Your task to perform on an android device: turn on data saver in the chrome app Image 0: 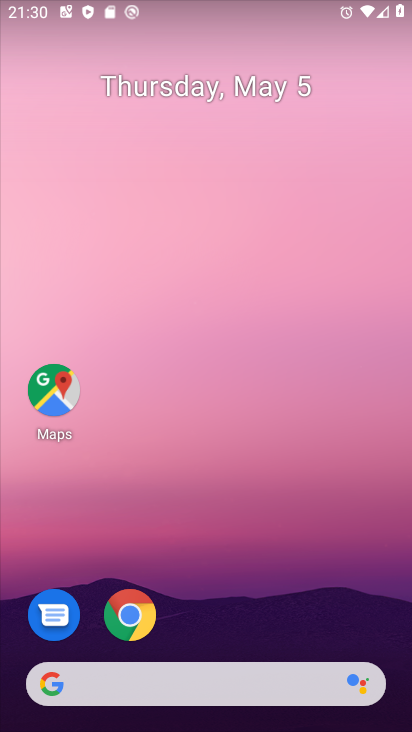
Step 0: drag from (220, 627) to (214, 188)
Your task to perform on an android device: turn on data saver in the chrome app Image 1: 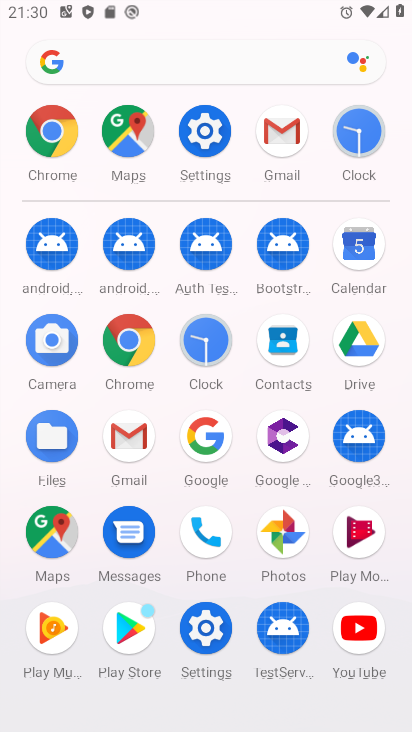
Step 1: click (132, 355)
Your task to perform on an android device: turn on data saver in the chrome app Image 2: 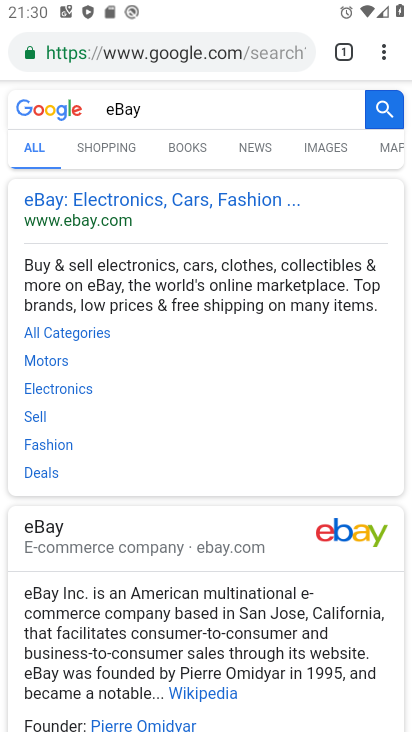
Step 2: click (383, 62)
Your task to perform on an android device: turn on data saver in the chrome app Image 3: 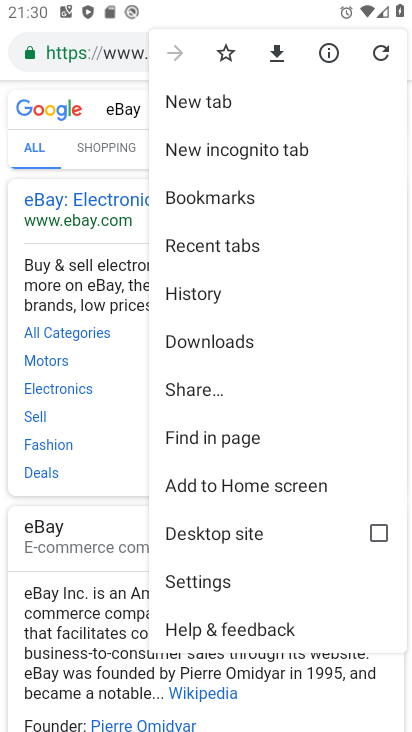
Step 3: click (219, 584)
Your task to perform on an android device: turn on data saver in the chrome app Image 4: 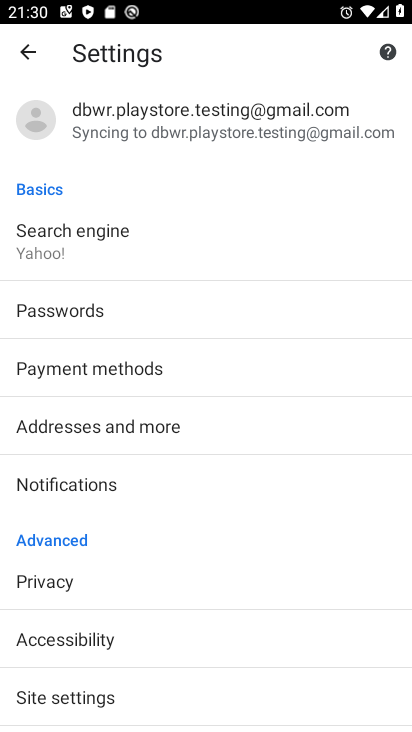
Step 4: drag from (104, 579) to (174, 186)
Your task to perform on an android device: turn on data saver in the chrome app Image 5: 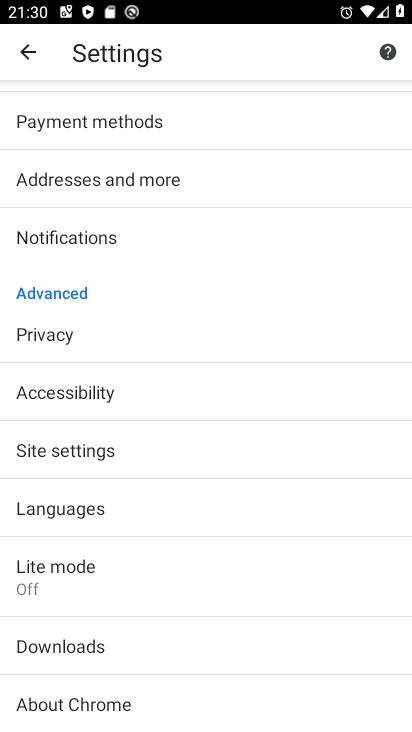
Step 5: click (64, 575)
Your task to perform on an android device: turn on data saver in the chrome app Image 6: 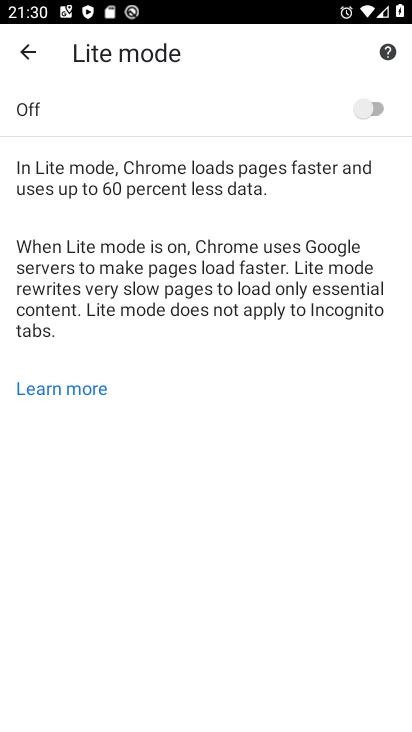
Step 6: click (383, 105)
Your task to perform on an android device: turn on data saver in the chrome app Image 7: 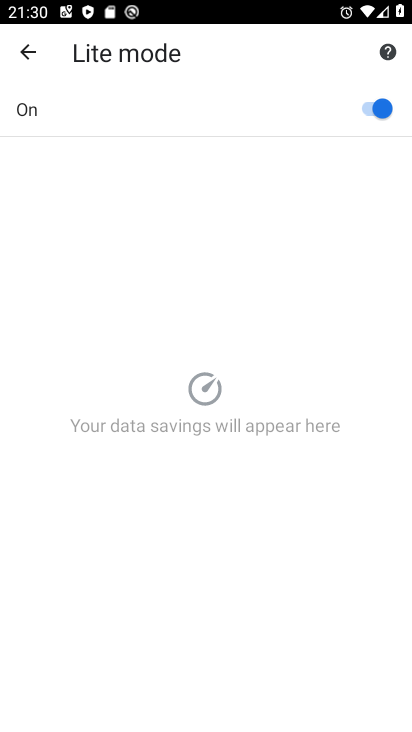
Step 7: task complete